Your task to perform on an android device: stop showing notifications on the lock screen Image 0: 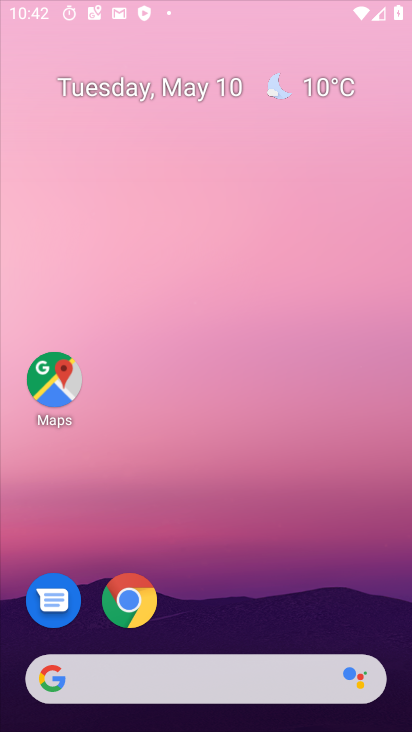
Step 0: click (230, 43)
Your task to perform on an android device: stop showing notifications on the lock screen Image 1: 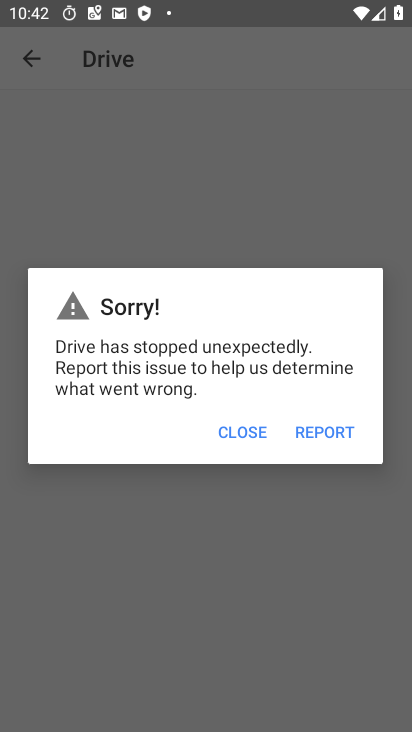
Step 1: press back button
Your task to perform on an android device: stop showing notifications on the lock screen Image 2: 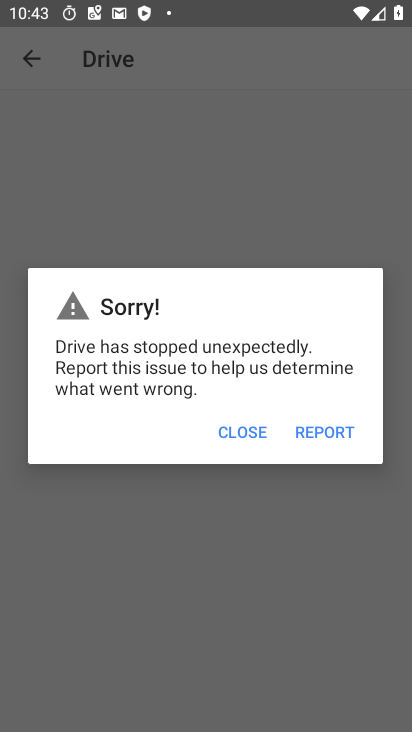
Step 2: press back button
Your task to perform on an android device: stop showing notifications on the lock screen Image 3: 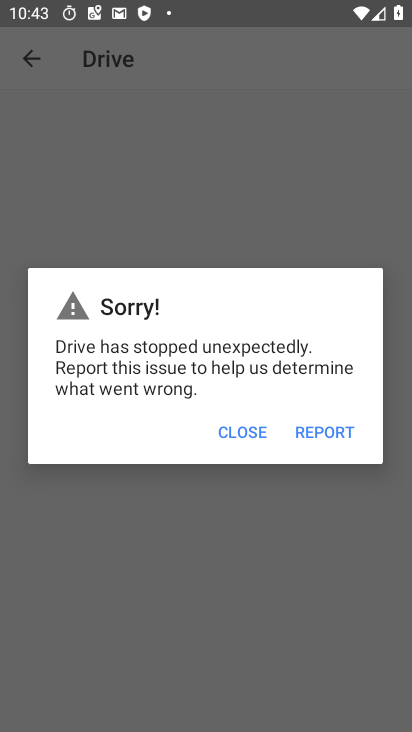
Step 3: press back button
Your task to perform on an android device: stop showing notifications on the lock screen Image 4: 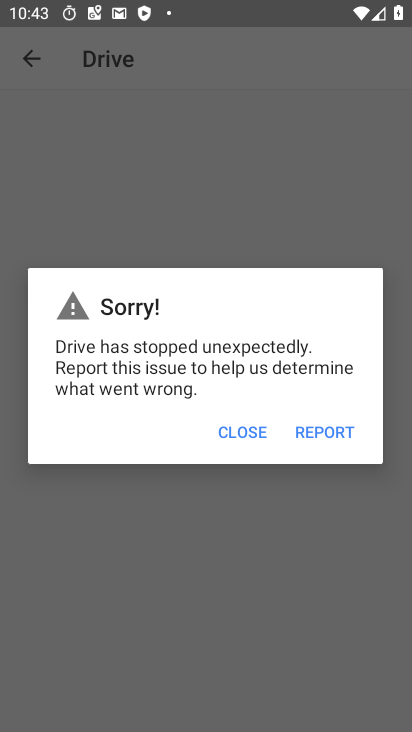
Step 4: press home button
Your task to perform on an android device: stop showing notifications on the lock screen Image 5: 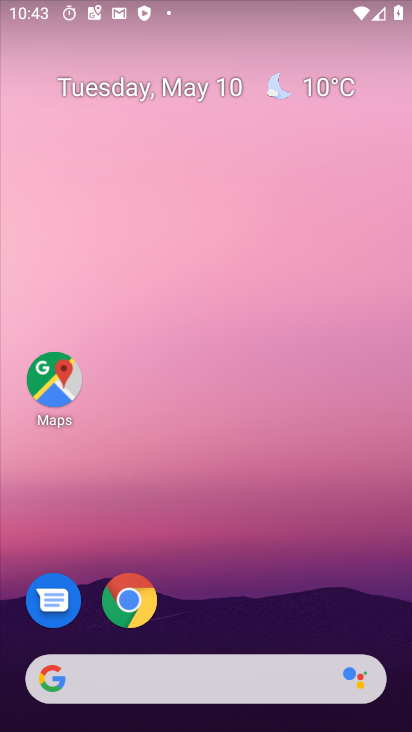
Step 5: drag from (262, 572) to (247, 30)
Your task to perform on an android device: stop showing notifications on the lock screen Image 6: 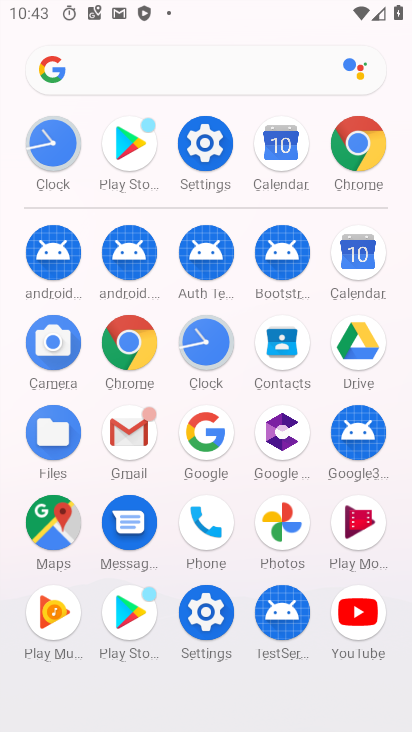
Step 6: drag from (12, 502) to (11, 224)
Your task to perform on an android device: stop showing notifications on the lock screen Image 7: 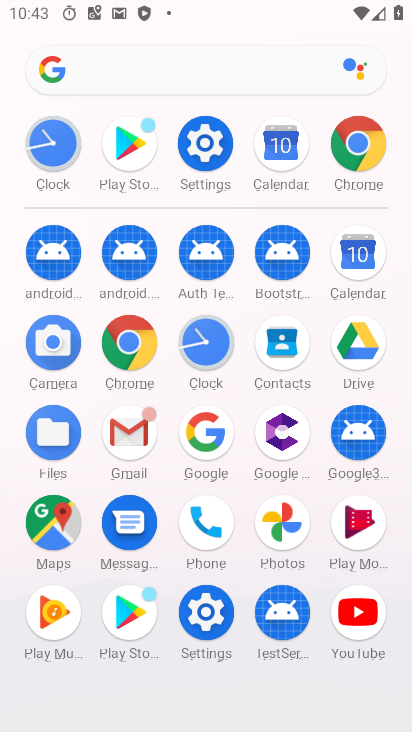
Step 7: click (206, 603)
Your task to perform on an android device: stop showing notifications on the lock screen Image 8: 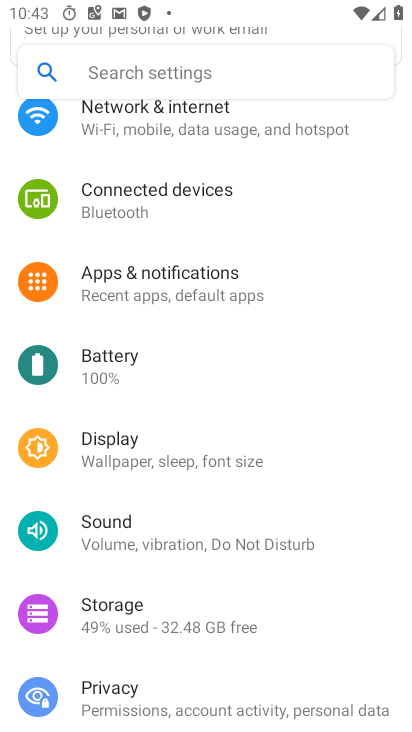
Step 8: drag from (279, 485) to (281, 104)
Your task to perform on an android device: stop showing notifications on the lock screen Image 9: 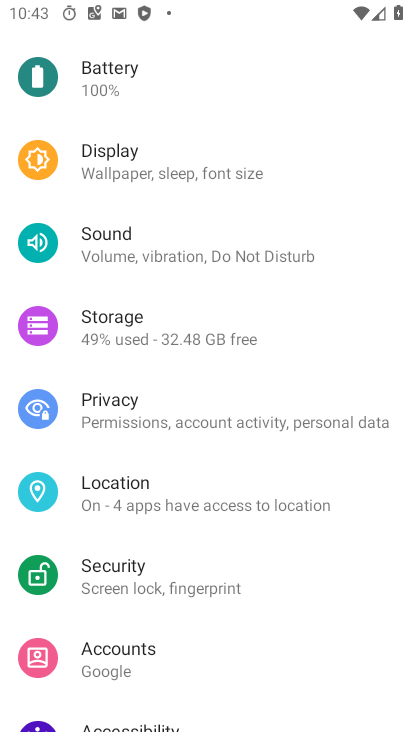
Step 9: click (148, 163)
Your task to perform on an android device: stop showing notifications on the lock screen Image 10: 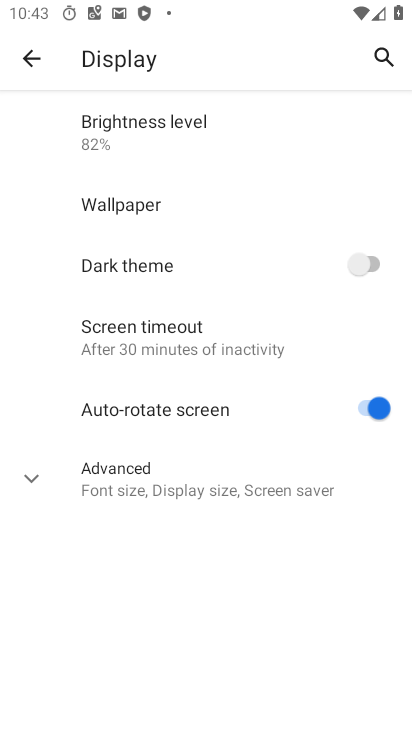
Step 10: click (27, 45)
Your task to perform on an android device: stop showing notifications on the lock screen Image 11: 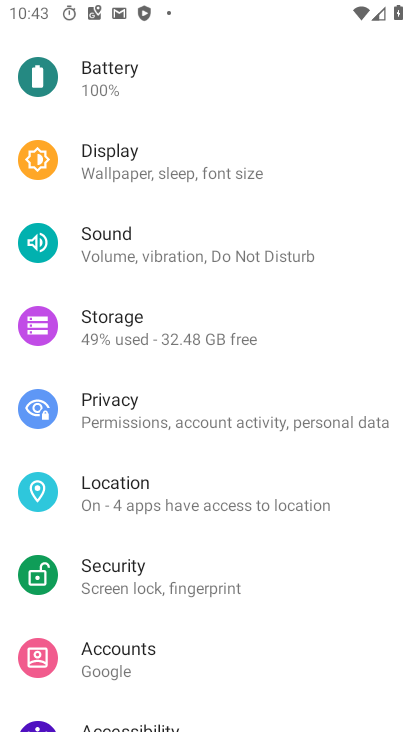
Step 11: drag from (238, 142) to (238, 466)
Your task to perform on an android device: stop showing notifications on the lock screen Image 12: 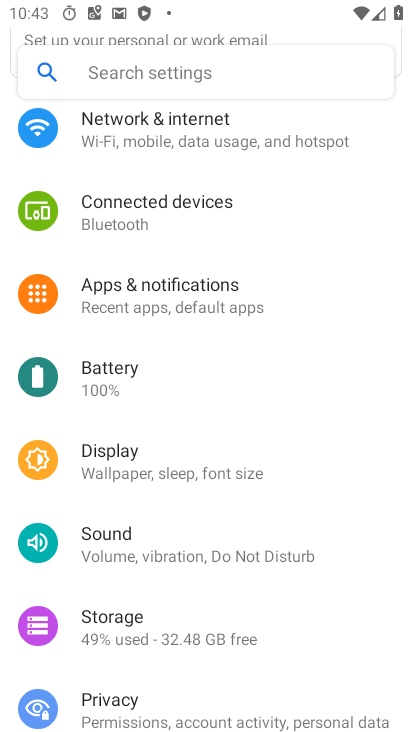
Step 12: drag from (258, 212) to (249, 448)
Your task to perform on an android device: stop showing notifications on the lock screen Image 13: 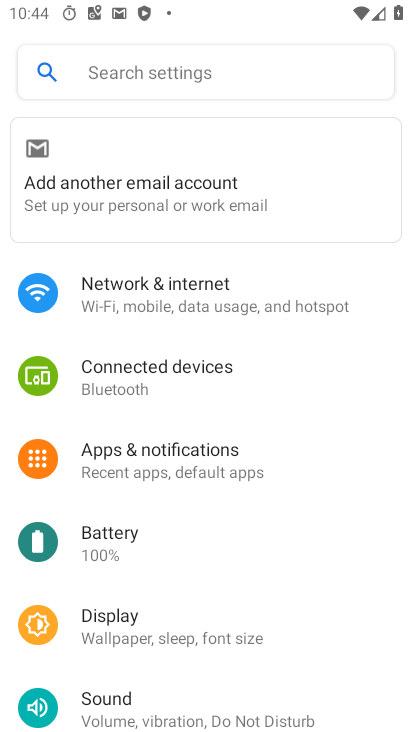
Step 13: click (177, 449)
Your task to perform on an android device: stop showing notifications on the lock screen Image 14: 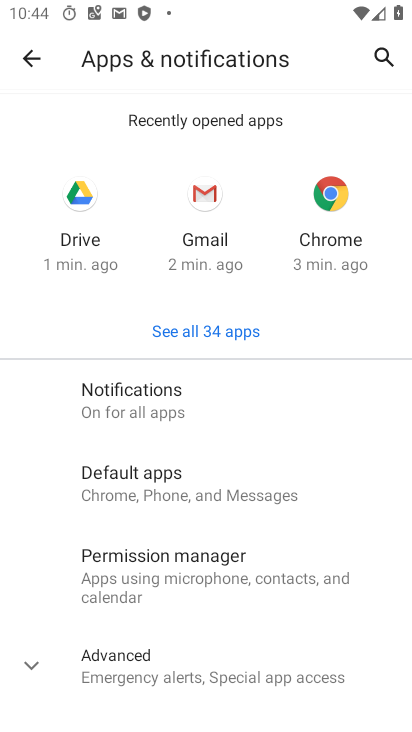
Step 14: drag from (272, 395) to (271, 136)
Your task to perform on an android device: stop showing notifications on the lock screen Image 15: 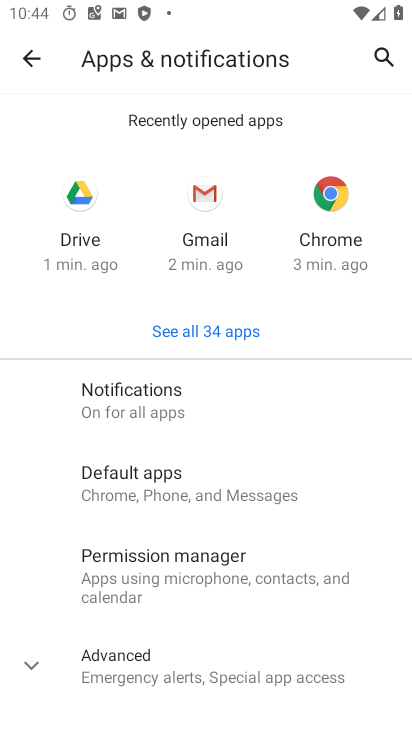
Step 15: click (31, 668)
Your task to perform on an android device: stop showing notifications on the lock screen Image 16: 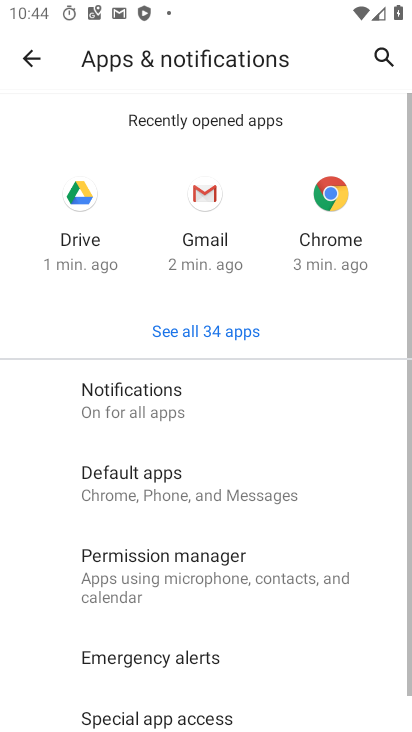
Step 16: drag from (280, 596) to (281, 306)
Your task to perform on an android device: stop showing notifications on the lock screen Image 17: 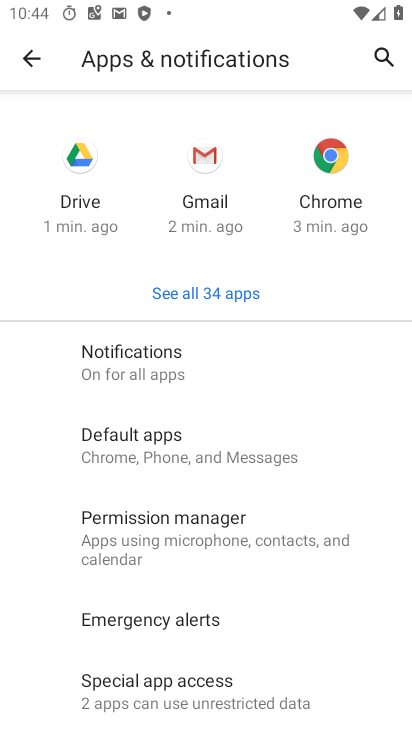
Step 17: click (200, 351)
Your task to perform on an android device: stop showing notifications on the lock screen Image 18: 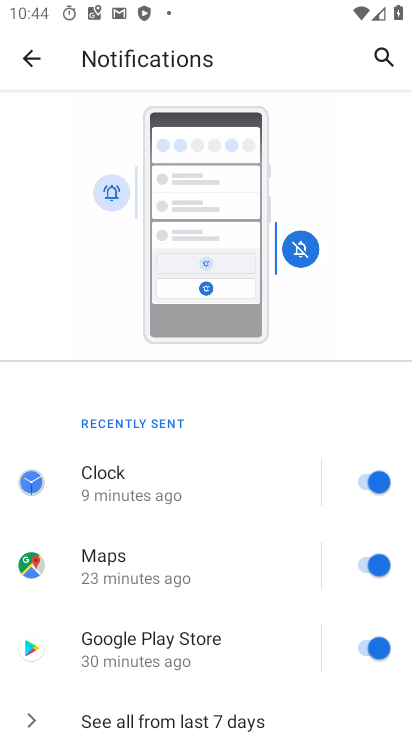
Step 18: drag from (220, 599) to (275, 140)
Your task to perform on an android device: stop showing notifications on the lock screen Image 19: 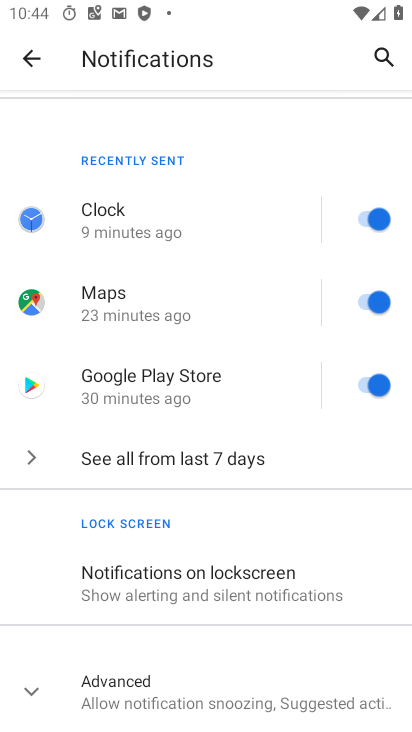
Step 19: click (195, 574)
Your task to perform on an android device: stop showing notifications on the lock screen Image 20: 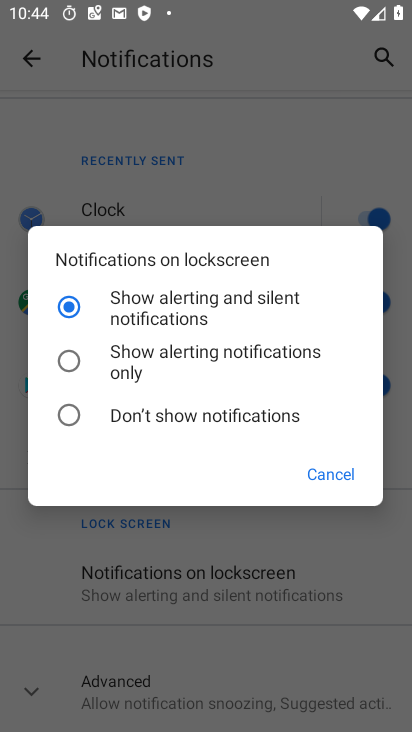
Step 20: click (159, 414)
Your task to perform on an android device: stop showing notifications on the lock screen Image 21: 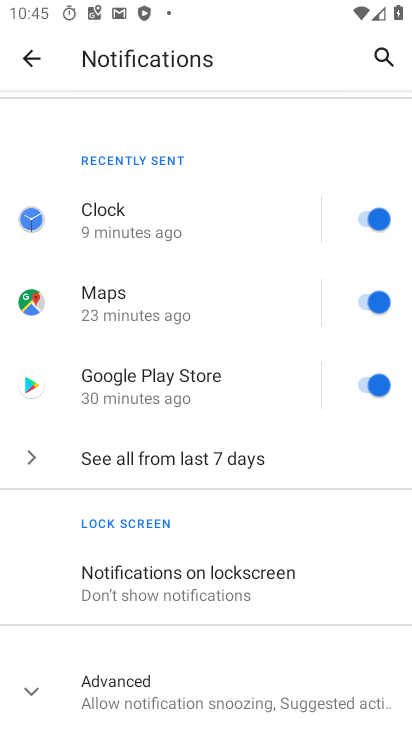
Step 21: task complete